Your task to perform on an android device: What's on my calendar today? Image 0: 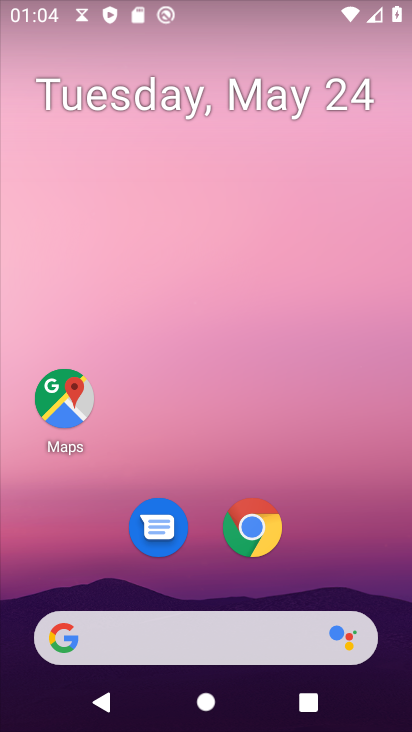
Step 0: drag from (185, 651) to (384, 154)
Your task to perform on an android device: What's on my calendar today? Image 1: 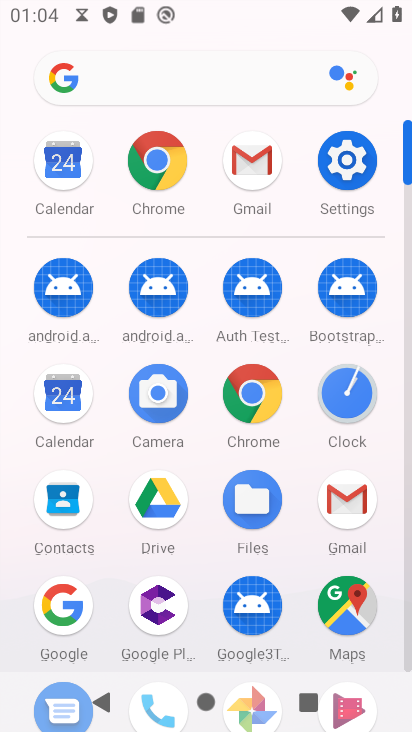
Step 1: click (64, 393)
Your task to perform on an android device: What's on my calendar today? Image 2: 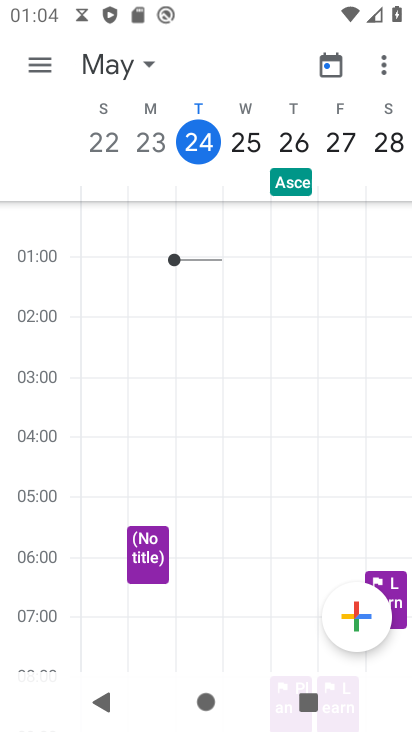
Step 2: click (122, 64)
Your task to perform on an android device: What's on my calendar today? Image 3: 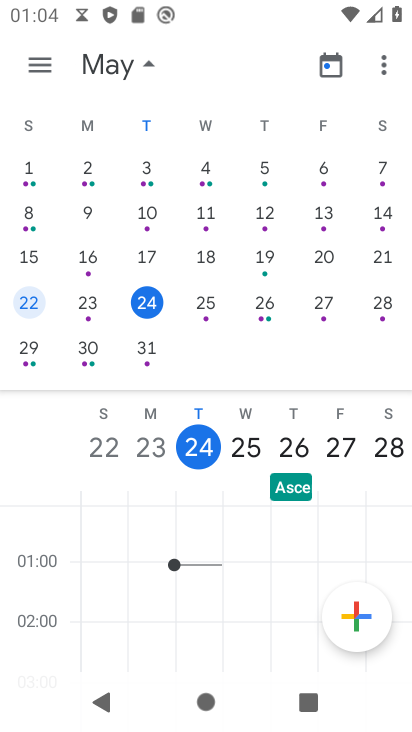
Step 3: click (150, 310)
Your task to perform on an android device: What's on my calendar today? Image 4: 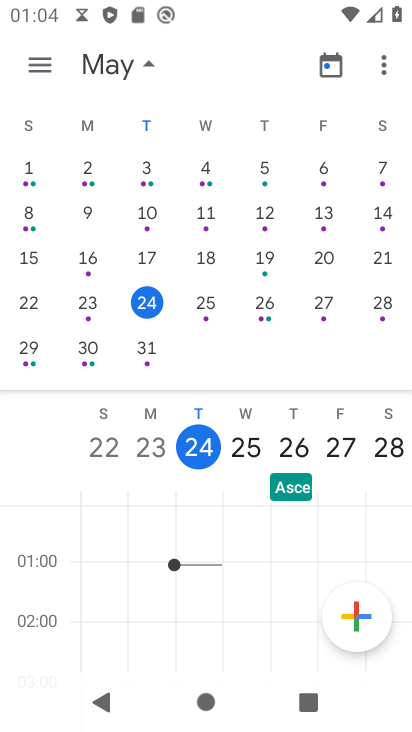
Step 4: click (42, 63)
Your task to perform on an android device: What's on my calendar today? Image 5: 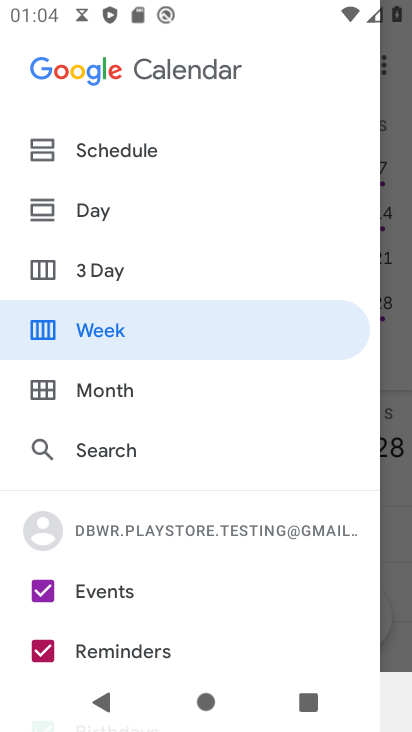
Step 5: click (90, 212)
Your task to perform on an android device: What's on my calendar today? Image 6: 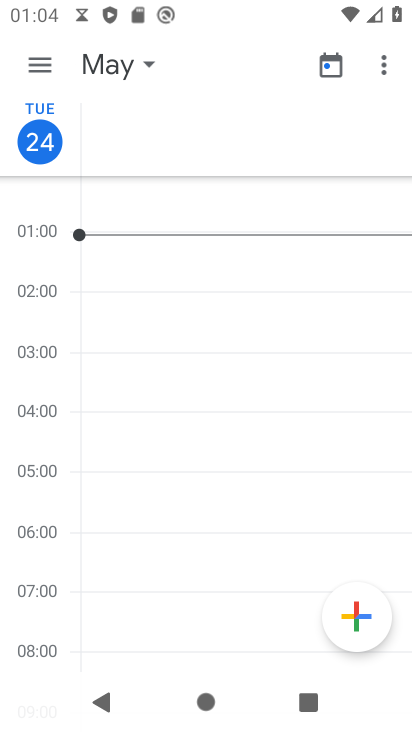
Step 6: click (51, 63)
Your task to perform on an android device: What's on my calendar today? Image 7: 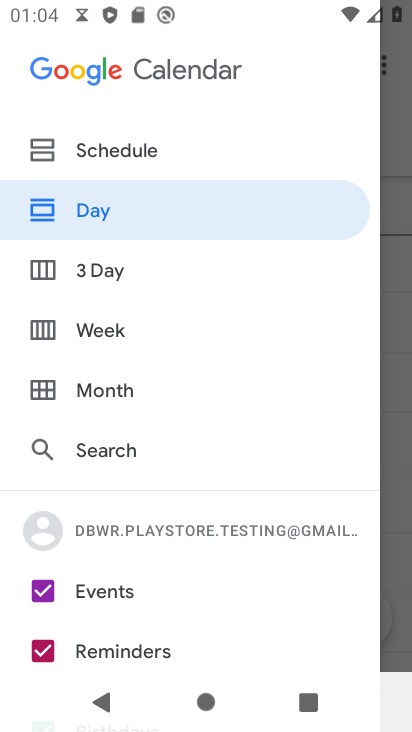
Step 7: click (127, 134)
Your task to perform on an android device: What's on my calendar today? Image 8: 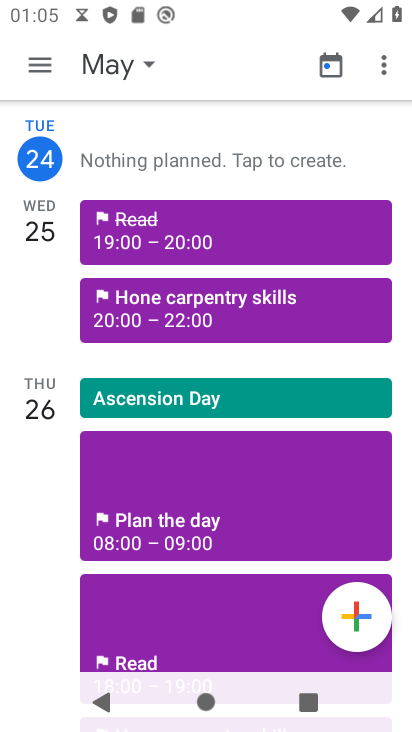
Step 8: task complete